Your task to perform on an android device: Open Google Chrome and open the bookmarks view Image 0: 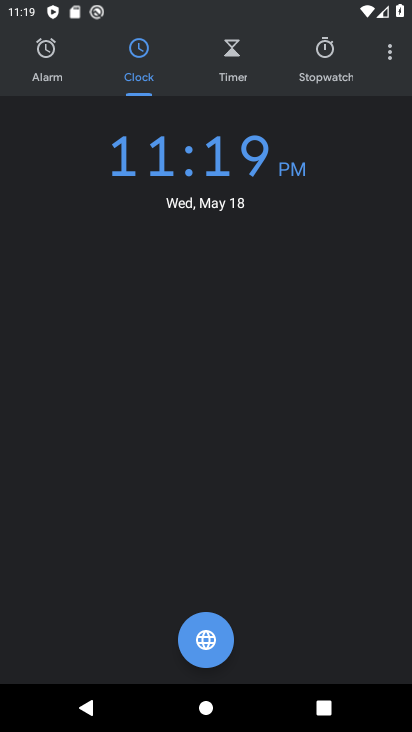
Step 0: press home button
Your task to perform on an android device: Open Google Chrome and open the bookmarks view Image 1: 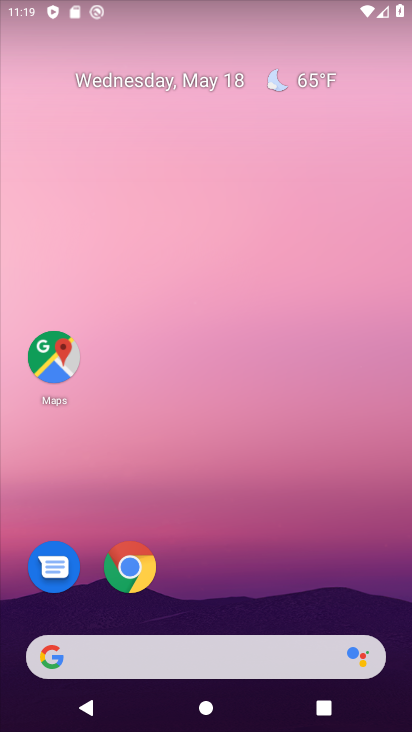
Step 1: click (133, 568)
Your task to perform on an android device: Open Google Chrome and open the bookmarks view Image 2: 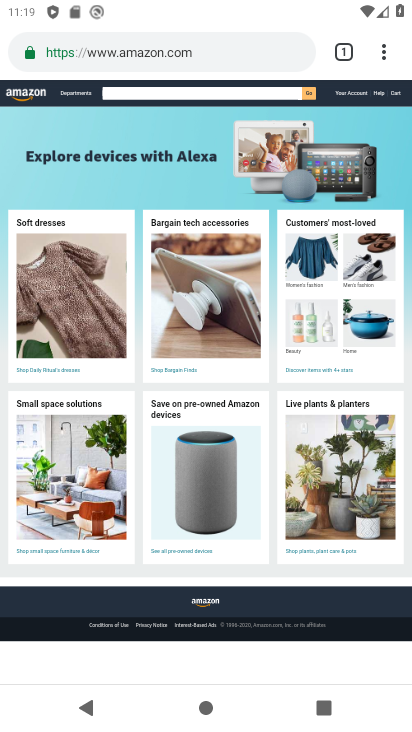
Step 2: click (380, 50)
Your task to perform on an android device: Open Google Chrome and open the bookmarks view Image 3: 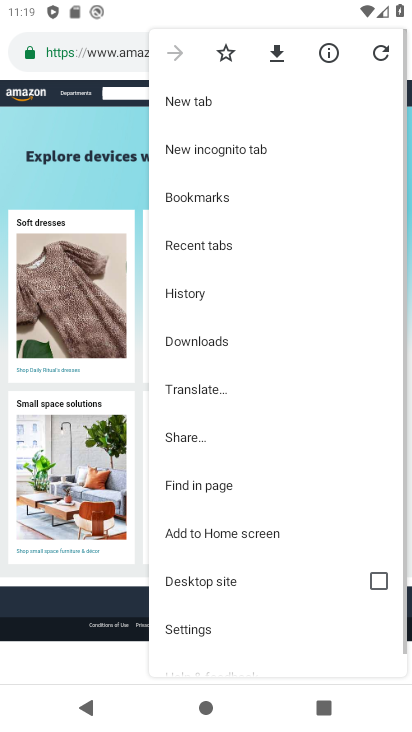
Step 3: click (204, 198)
Your task to perform on an android device: Open Google Chrome and open the bookmarks view Image 4: 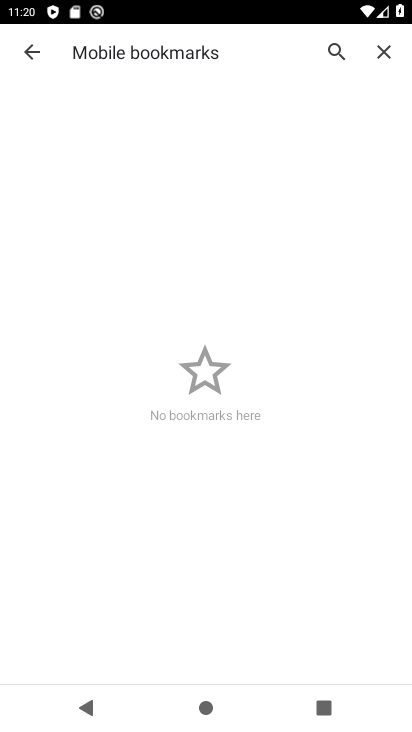
Step 4: task complete